Your task to perform on an android device: Show the shopping cart on costco. Add asus rog to the cart on costco Image 0: 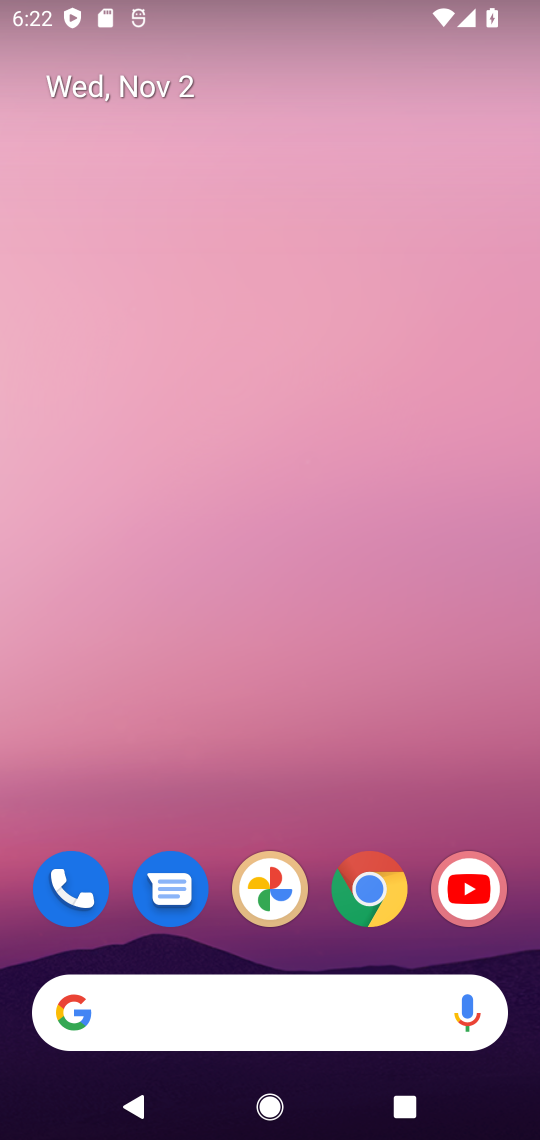
Step 0: click (379, 883)
Your task to perform on an android device: Show the shopping cart on costco. Add asus rog to the cart on costco Image 1: 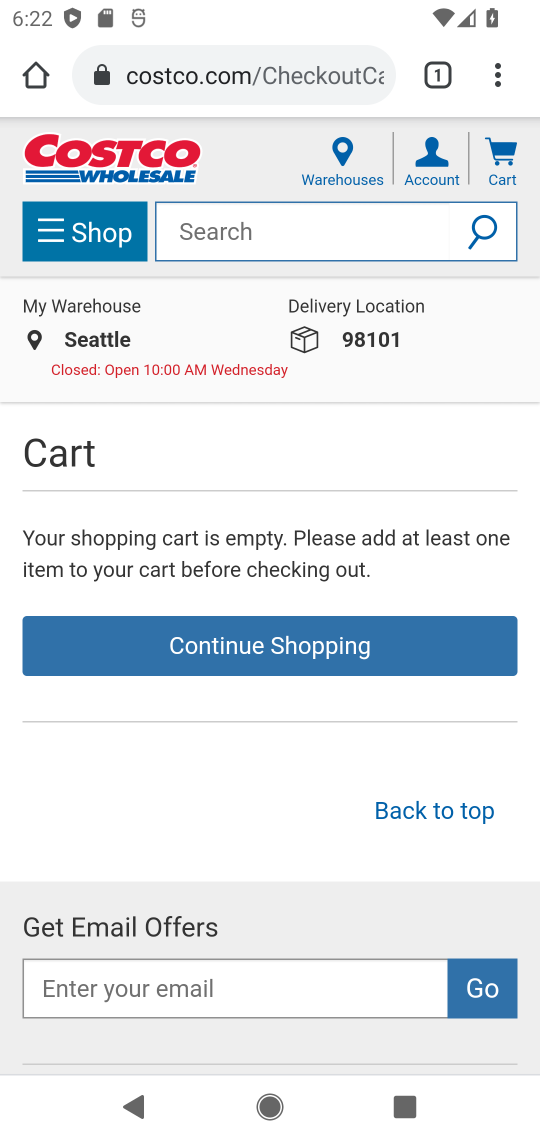
Step 1: click (300, 218)
Your task to perform on an android device: Show the shopping cart on costco. Add asus rog to the cart on costco Image 2: 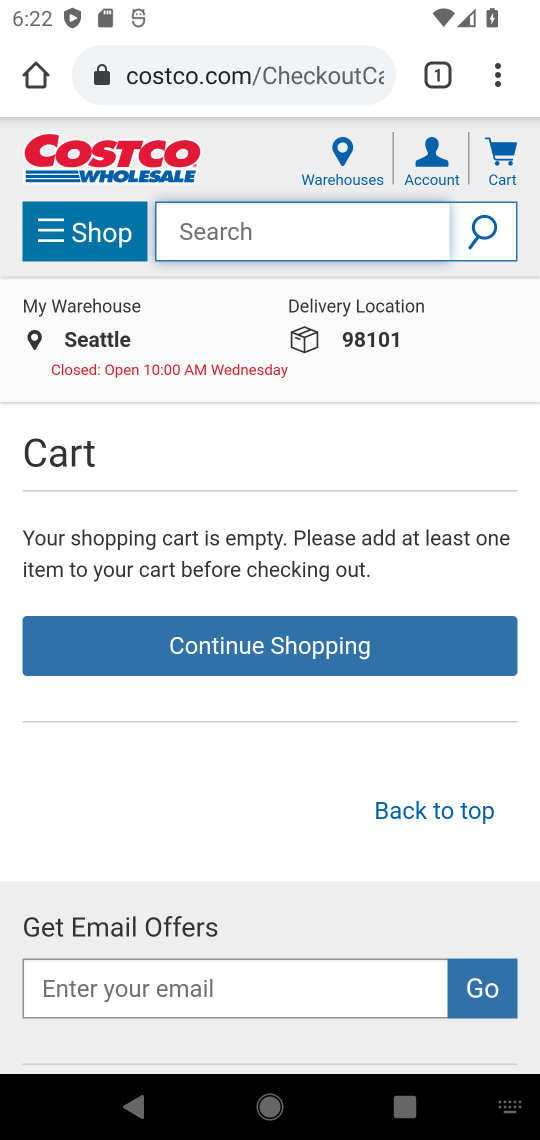
Step 2: press enter
Your task to perform on an android device: Show the shopping cart on costco. Add asus rog to the cart on costco Image 3: 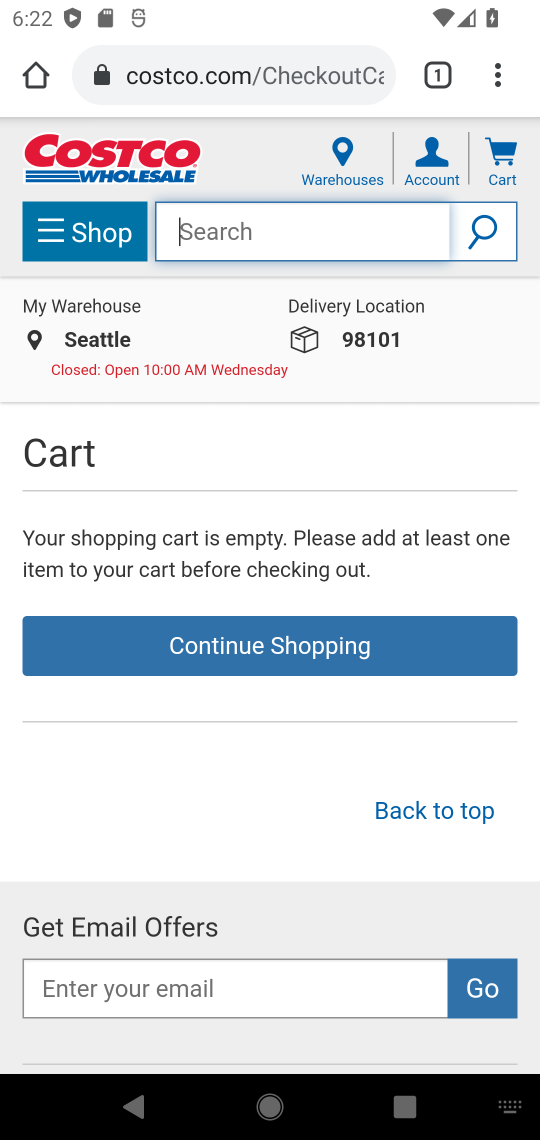
Step 3: type "asus rog"
Your task to perform on an android device: Show the shopping cart on costco. Add asus rog to the cart on costco Image 4: 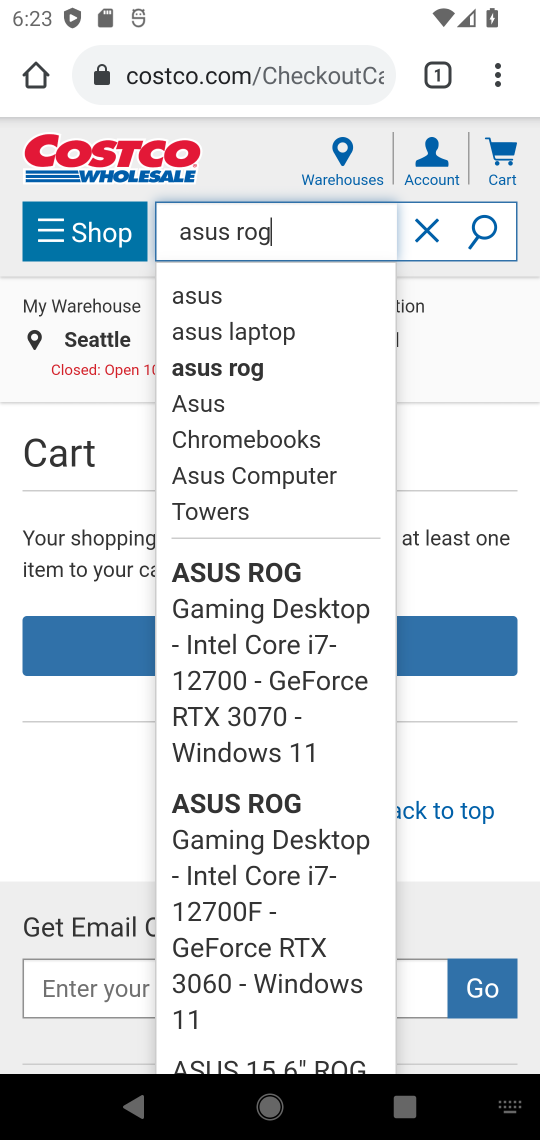
Step 4: click (216, 368)
Your task to perform on an android device: Show the shopping cart on costco. Add asus rog to the cart on costco Image 5: 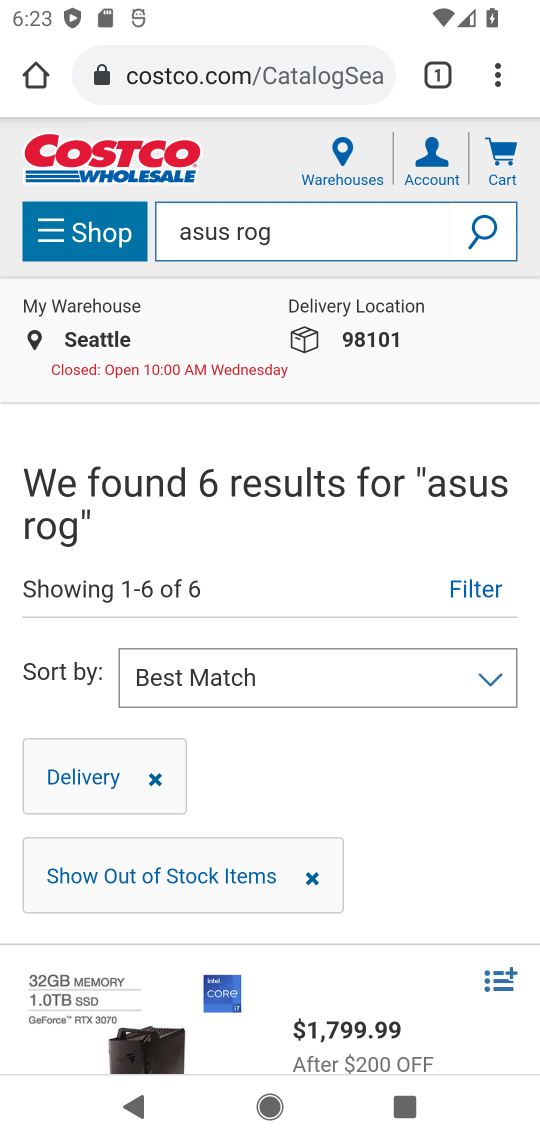
Step 5: drag from (425, 870) to (368, 362)
Your task to perform on an android device: Show the shopping cart on costco. Add asus rog to the cart on costco Image 6: 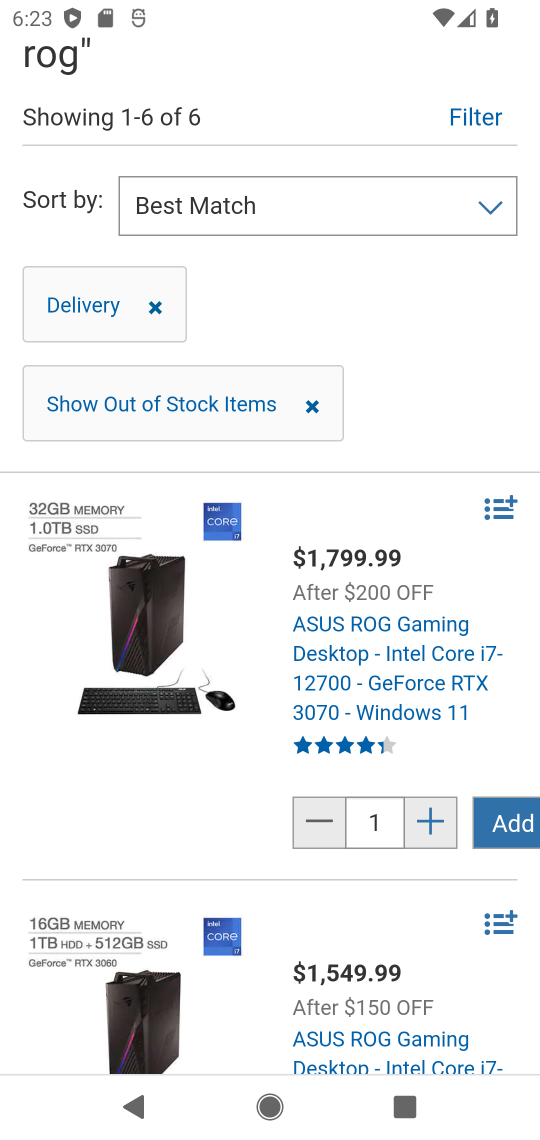
Step 6: click (123, 622)
Your task to perform on an android device: Show the shopping cart on costco. Add asus rog to the cart on costco Image 7: 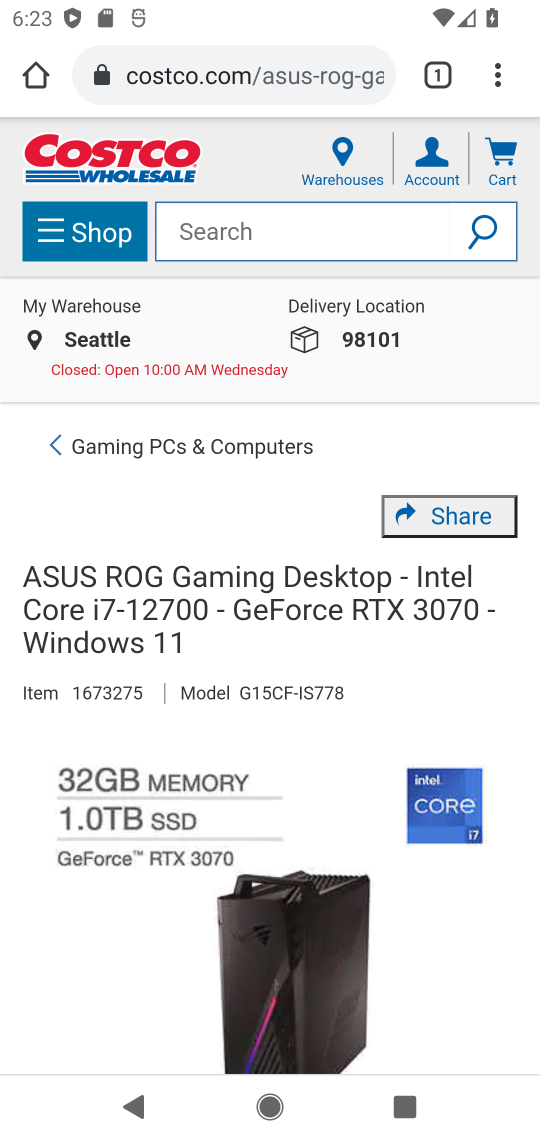
Step 7: drag from (365, 734) to (338, 289)
Your task to perform on an android device: Show the shopping cart on costco. Add asus rog to the cart on costco Image 8: 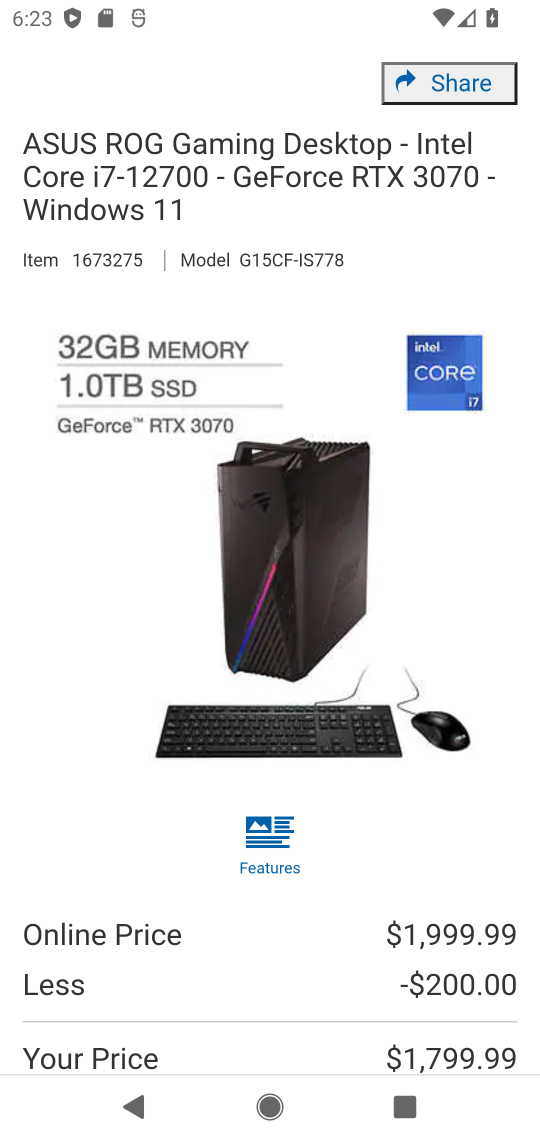
Step 8: drag from (421, 852) to (377, 425)
Your task to perform on an android device: Show the shopping cart on costco. Add asus rog to the cart on costco Image 9: 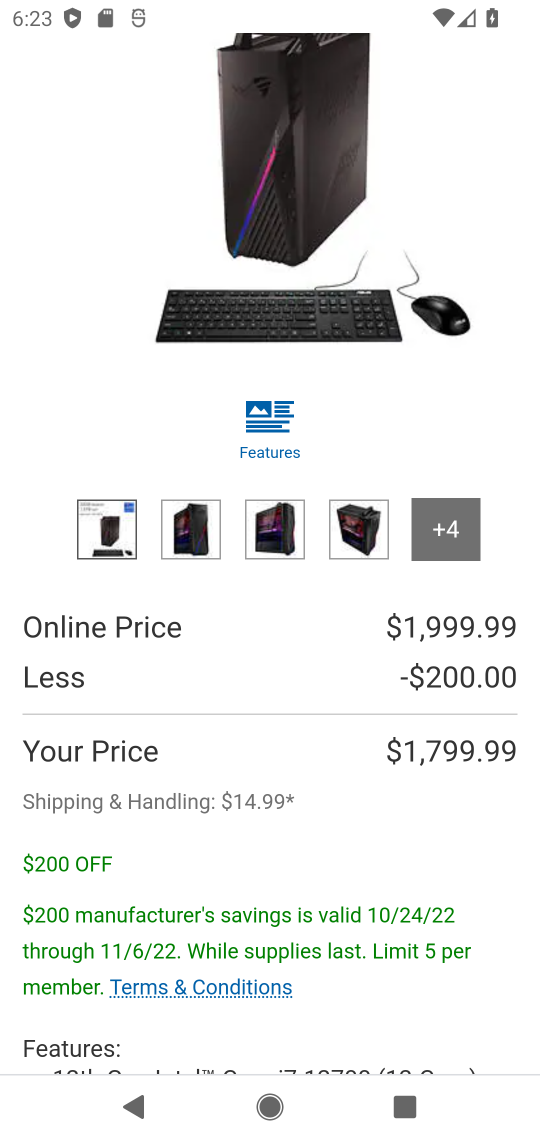
Step 9: drag from (389, 818) to (346, 374)
Your task to perform on an android device: Show the shopping cart on costco. Add asus rog to the cart on costco Image 10: 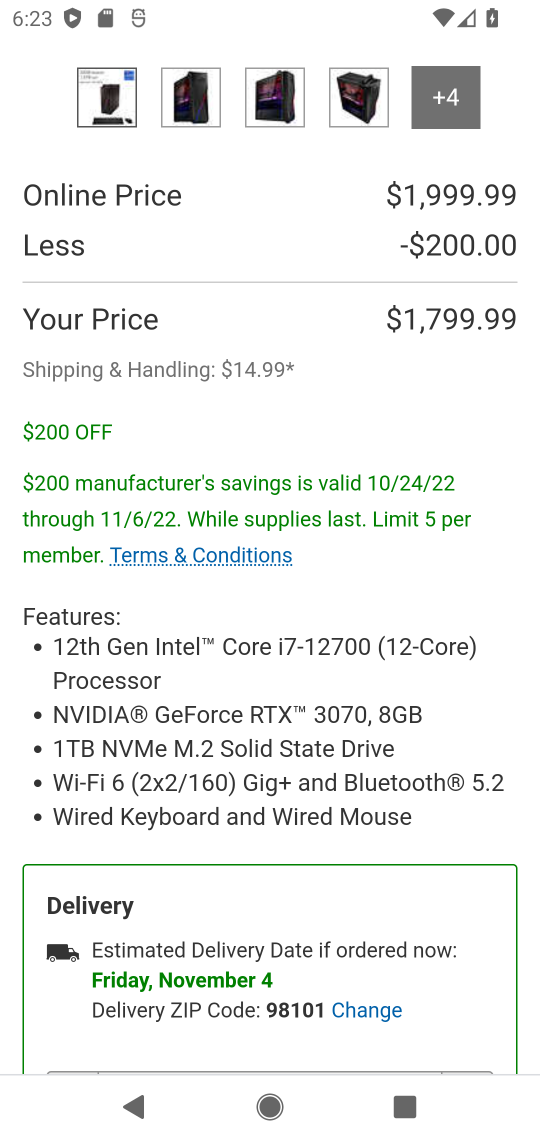
Step 10: drag from (409, 830) to (425, 370)
Your task to perform on an android device: Show the shopping cart on costco. Add asus rog to the cart on costco Image 11: 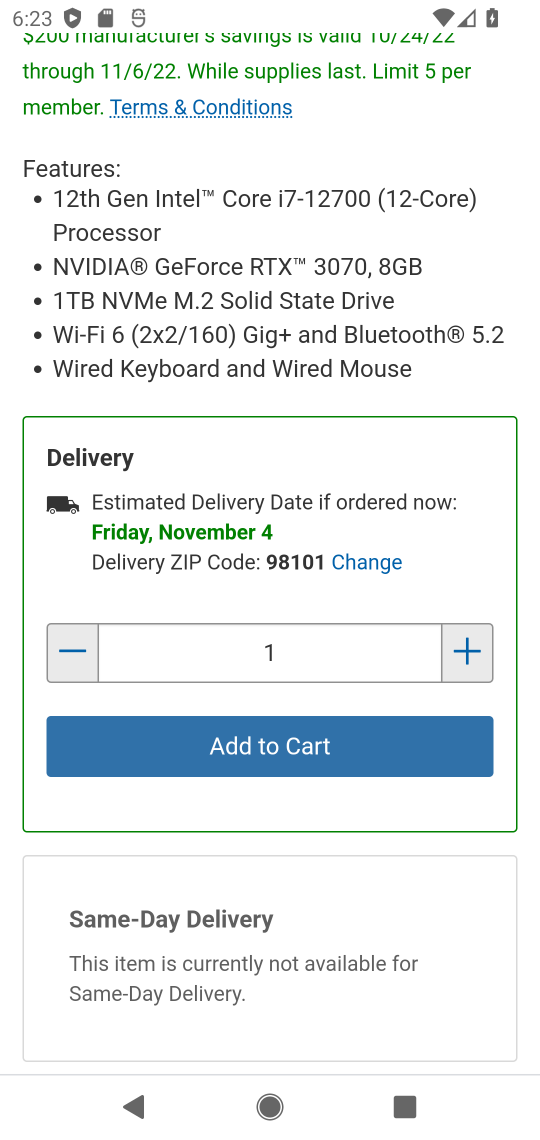
Step 11: click (335, 748)
Your task to perform on an android device: Show the shopping cart on costco. Add asus rog to the cart on costco Image 12: 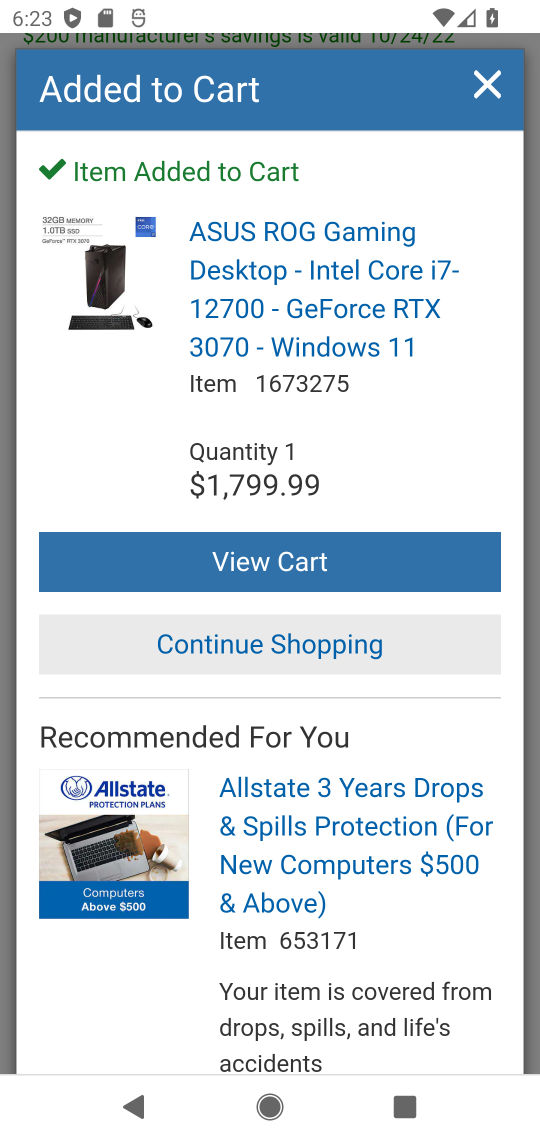
Step 12: task complete